Your task to perform on an android device: turn on sleep mode Image 0: 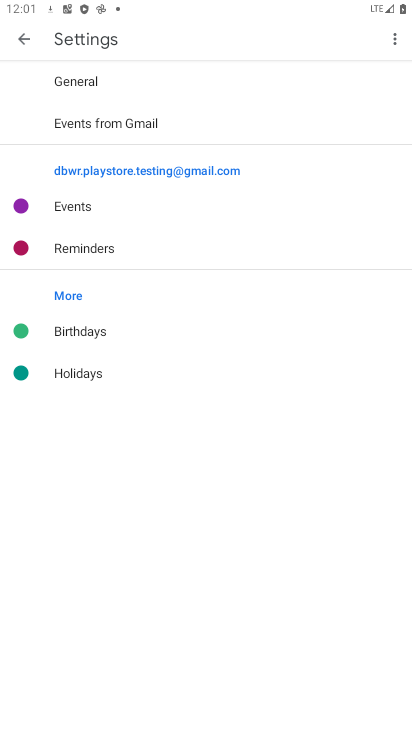
Step 0: press home button
Your task to perform on an android device: turn on sleep mode Image 1: 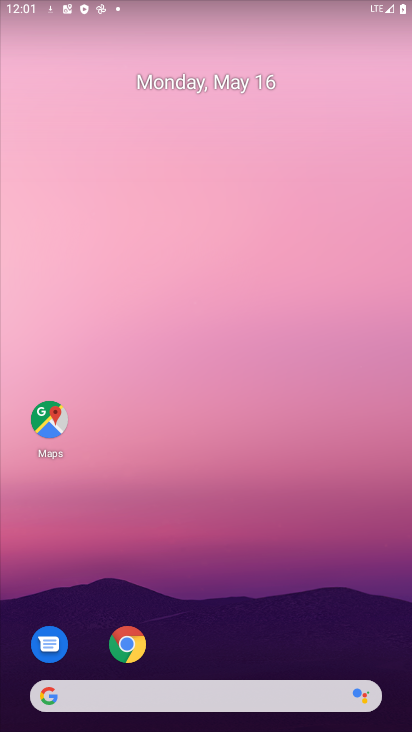
Step 1: drag from (187, 709) to (303, 337)
Your task to perform on an android device: turn on sleep mode Image 2: 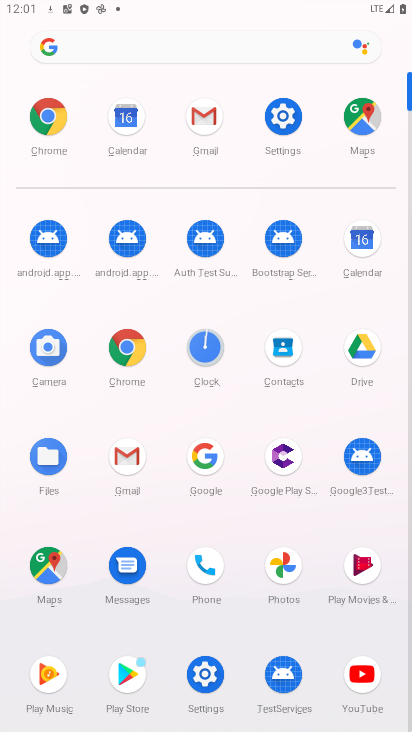
Step 2: click (197, 669)
Your task to perform on an android device: turn on sleep mode Image 3: 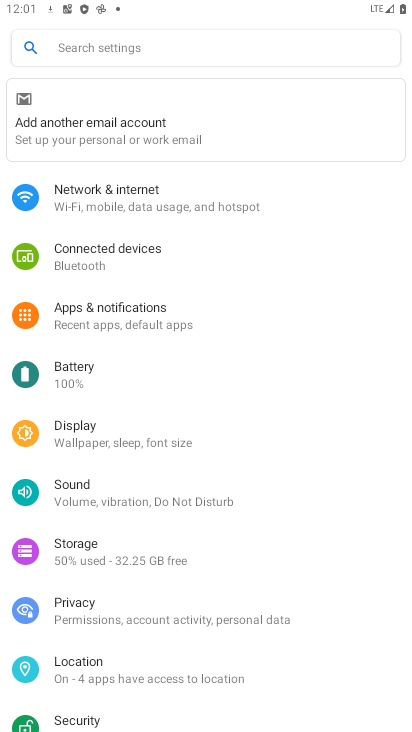
Step 3: click (99, 49)
Your task to perform on an android device: turn on sleep mode Image 4: 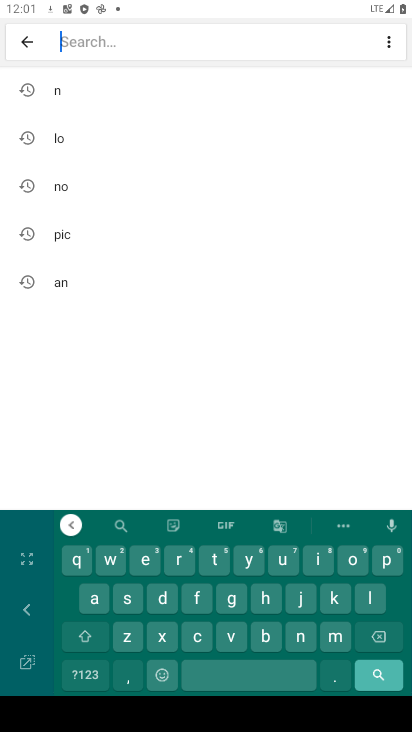
Step 4: click (40, 556)
Your task to perform on an android device: turn on sleep mode Image 5: 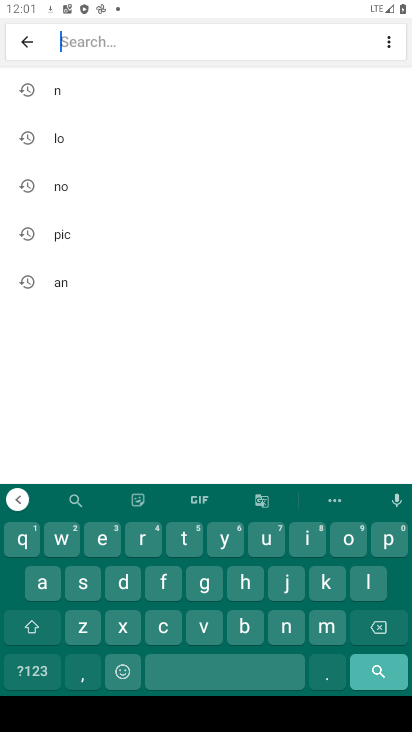
Step 5: click (86, 596)
Your task to perform on an android device: turn on sleep mode Image 6: 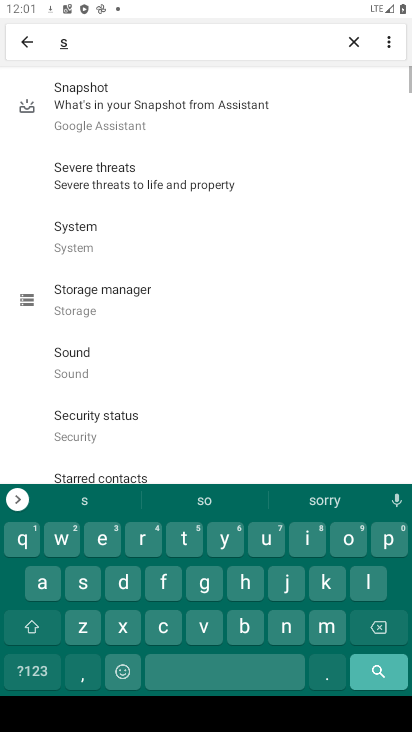
Step 6: click (375, 587)
Your task to perform on an android device: turn on sleep mode Image 7: 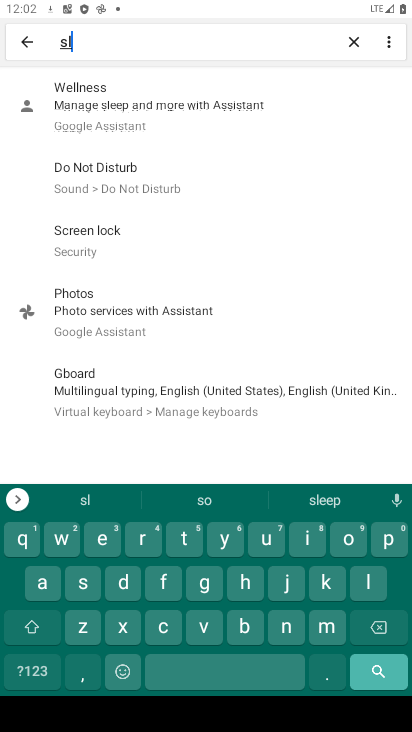
Step 7: click (103, 119)
Your task to perform on an android device: turn on sleep mode Image 8: 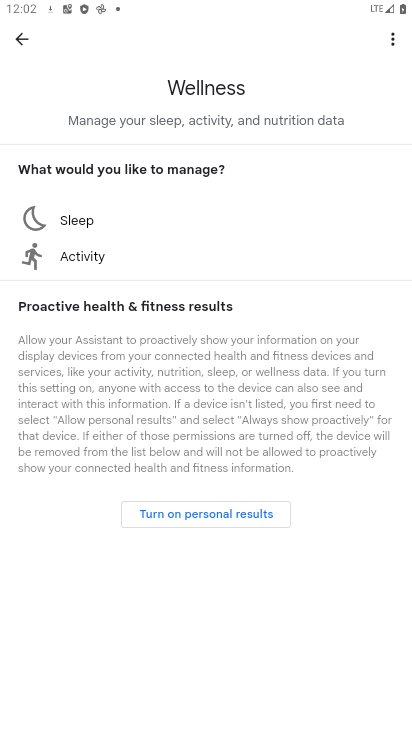
Step 8: click (96, 221)
Your task to perform on an android device: turn on sleep mode Image 9: 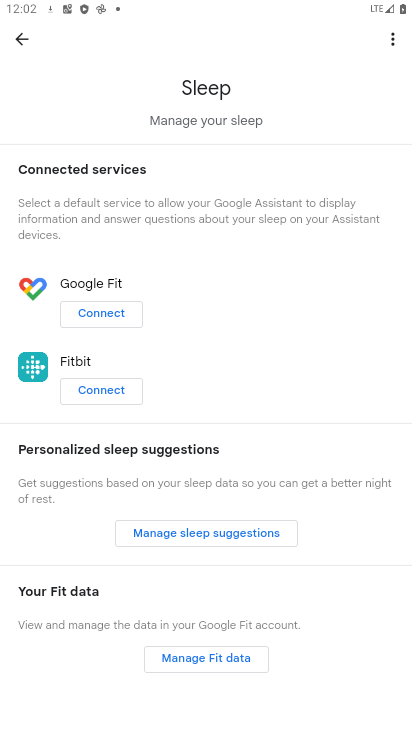
Step 9: task complete